Your task to perform on an android device: uninstall "Indeed Job Search" Image 0: 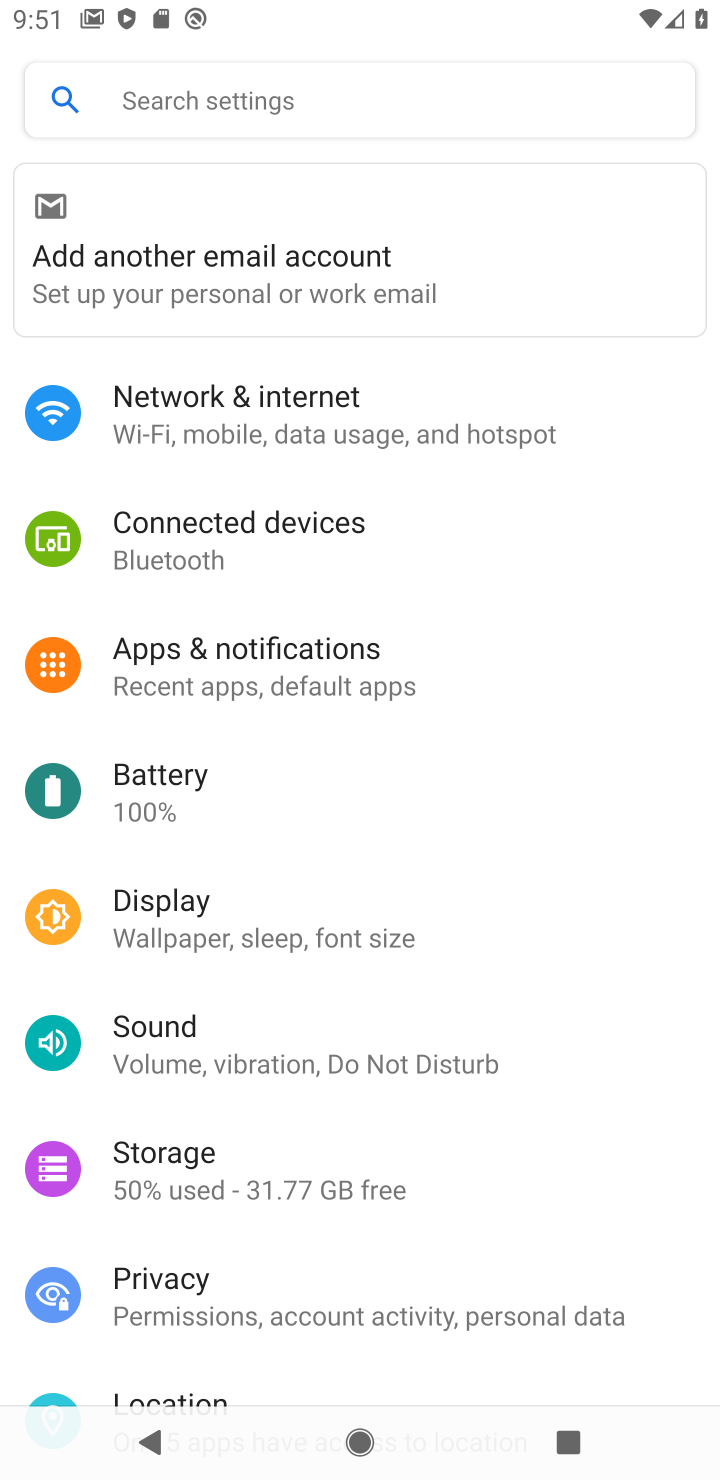
Step 0: press back button
Your task to perform on an android device: uninstall "Indeed Job Search" Image 1: 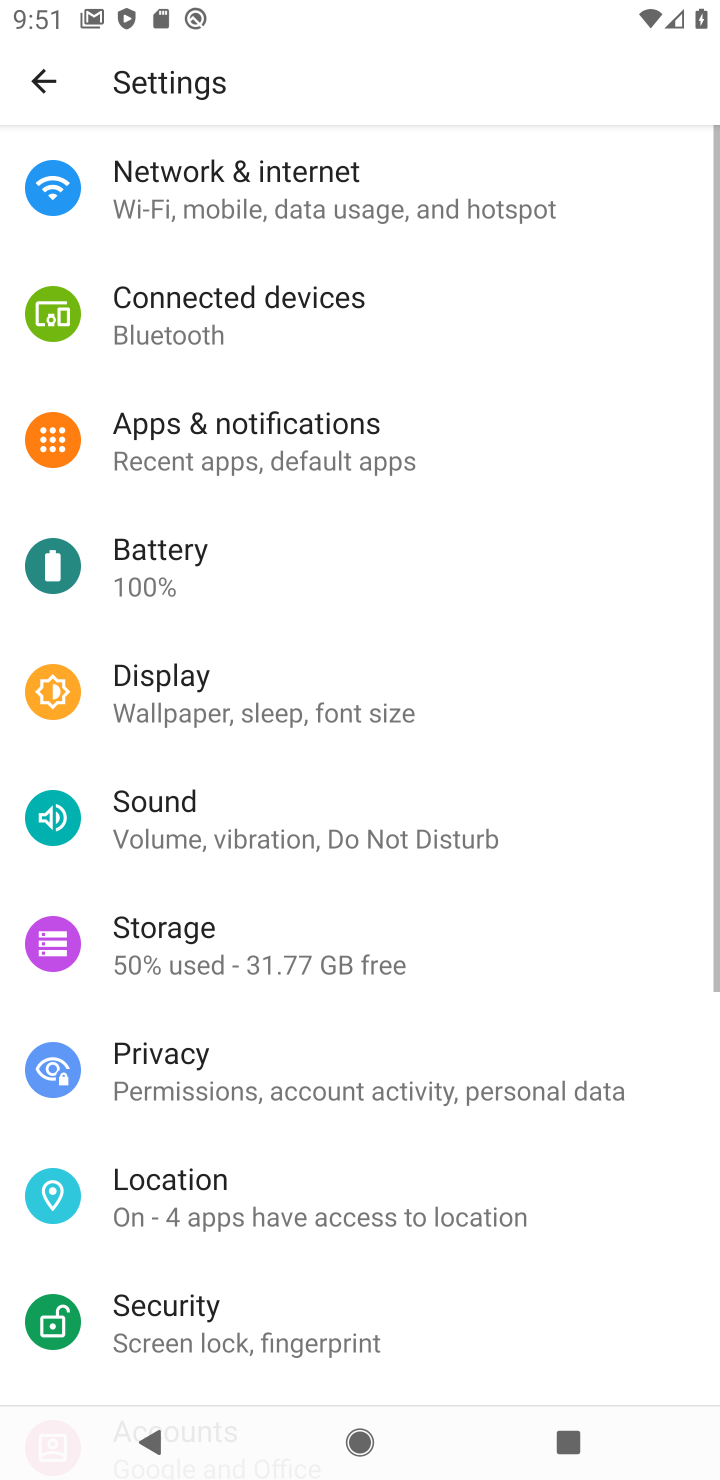
Step 1: press home button
Your task to perform on an android device: uninstall "Indeed Job Search" Image 2: 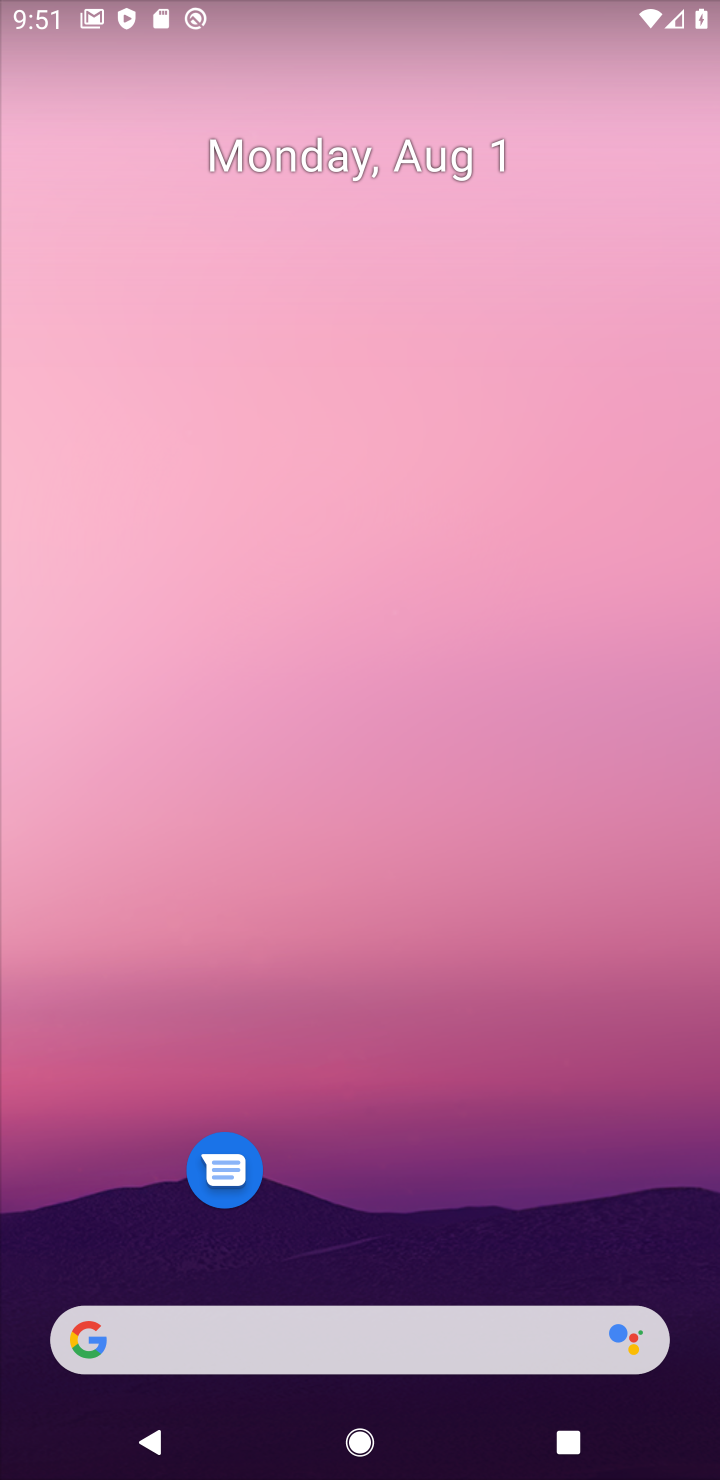
Step 2: drag from (352, 1158) to (393, 393)
Your task to perform on an android device: uninstall "Indeed Job Search" Image 3: 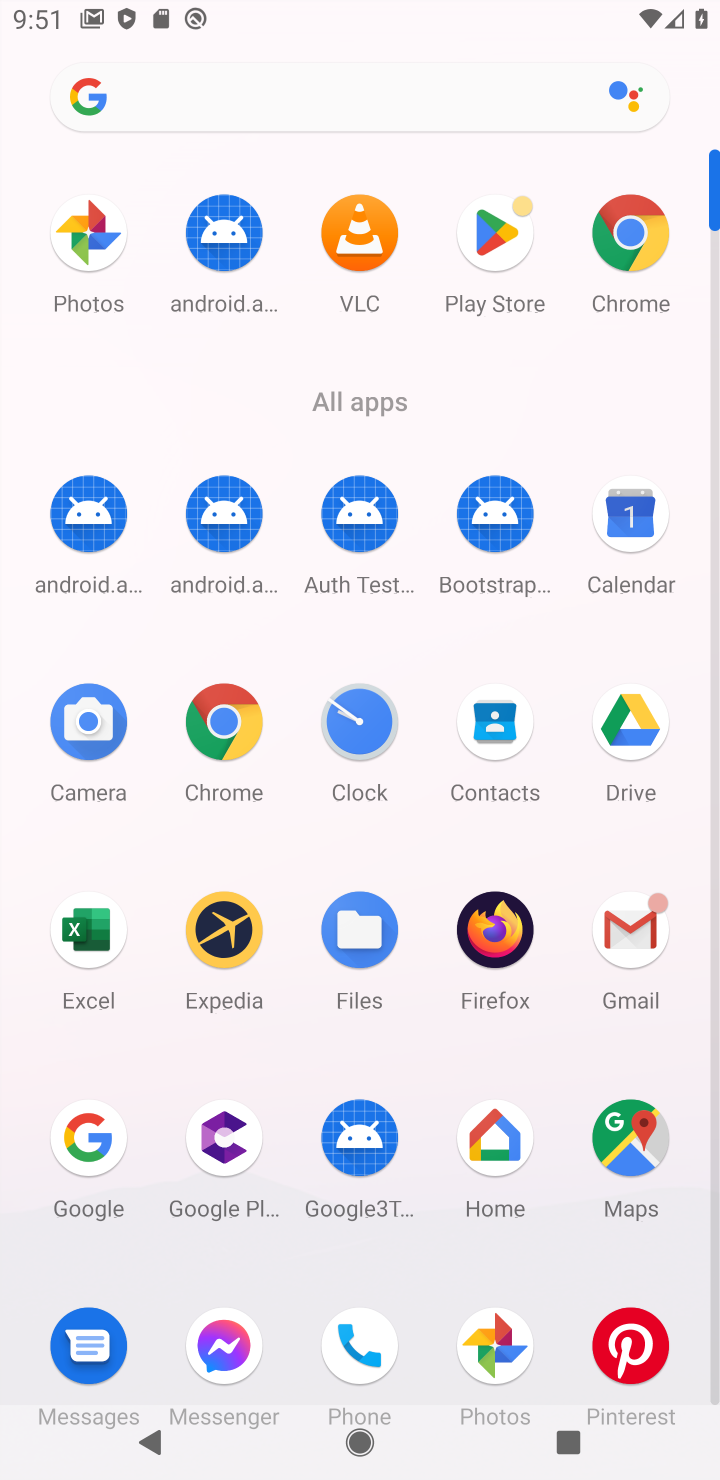
Step 3: click (510, 236)
Your task to perform on an android device: uninstall "Indeed Job Search" Image 4: 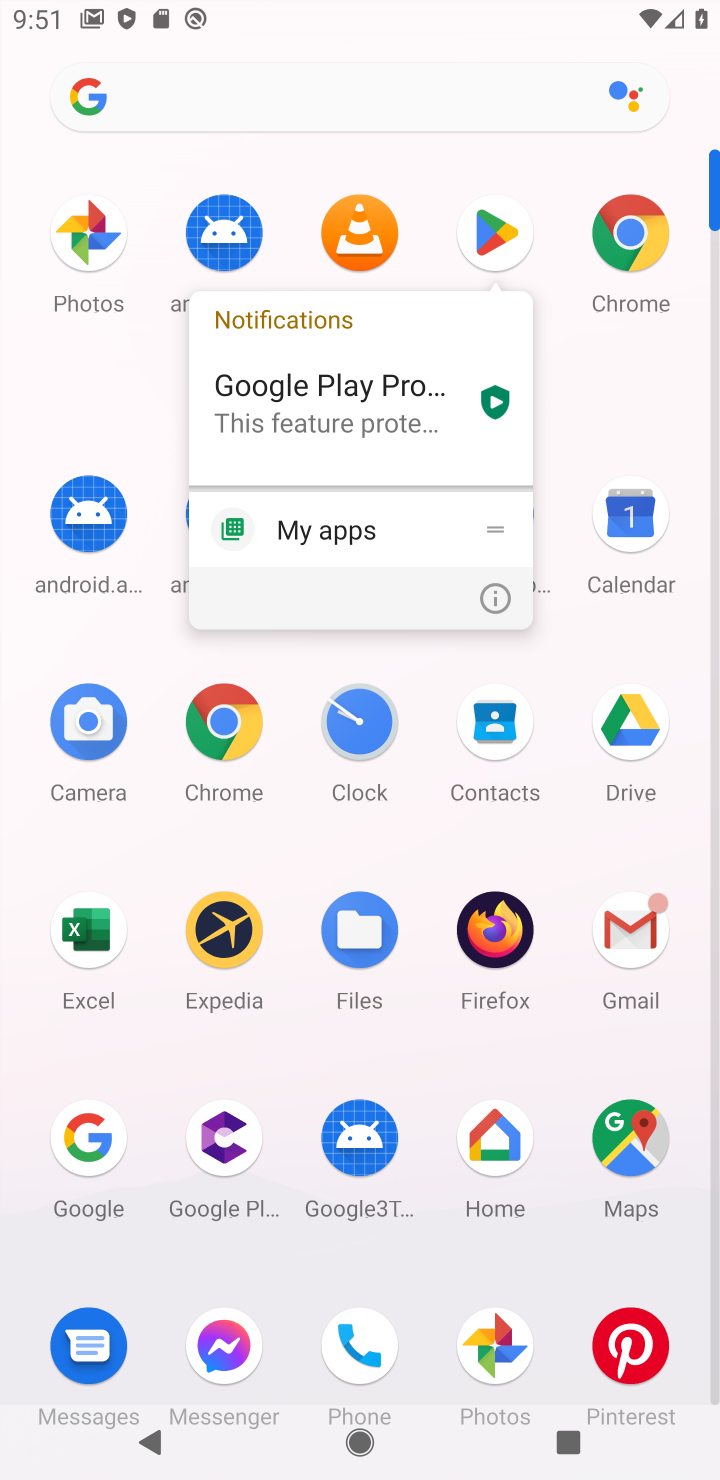
Step 4: click (359, 522)
Your task to perform on an android device: uninstall "Indeed Job Search" Image 5: 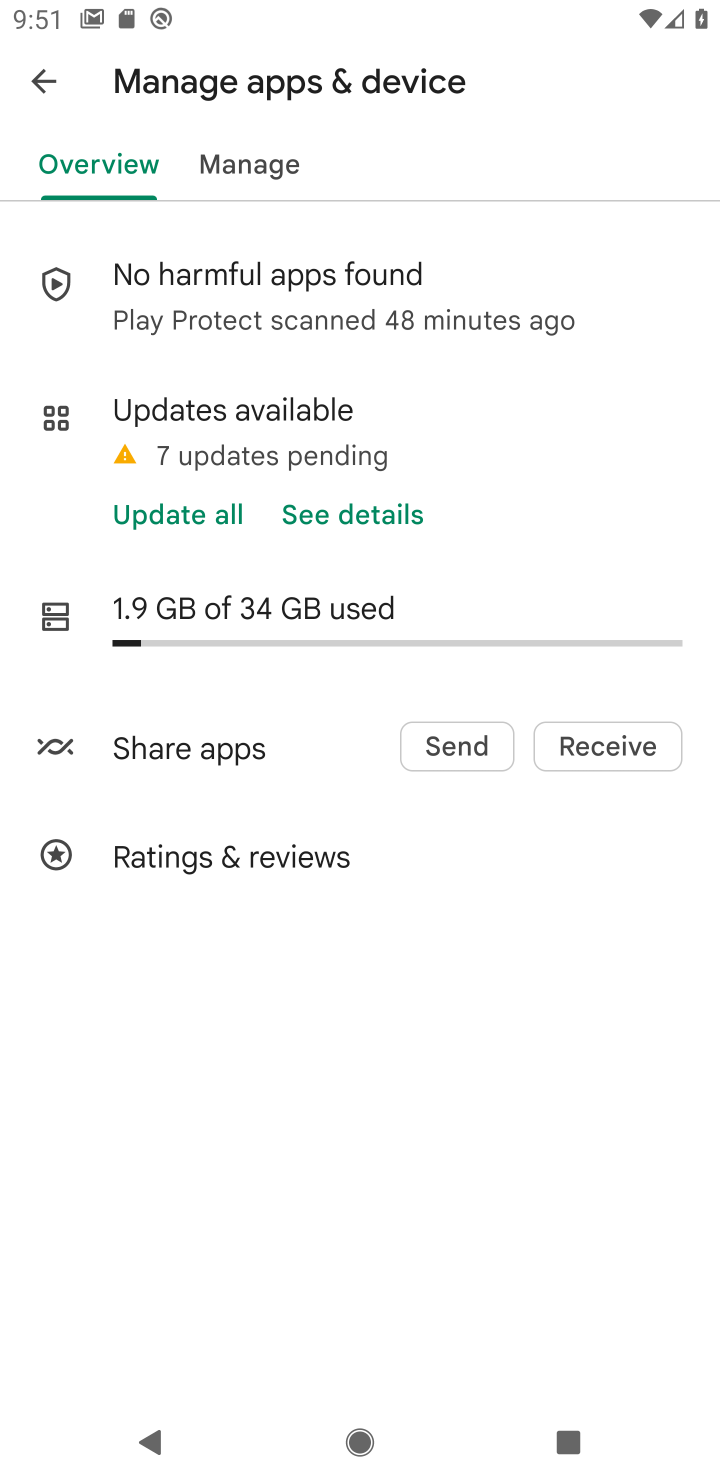
Step 5: click (16, 64)
Your task to perform on an android device: uninstall "Indeed Job Search" Image 6: 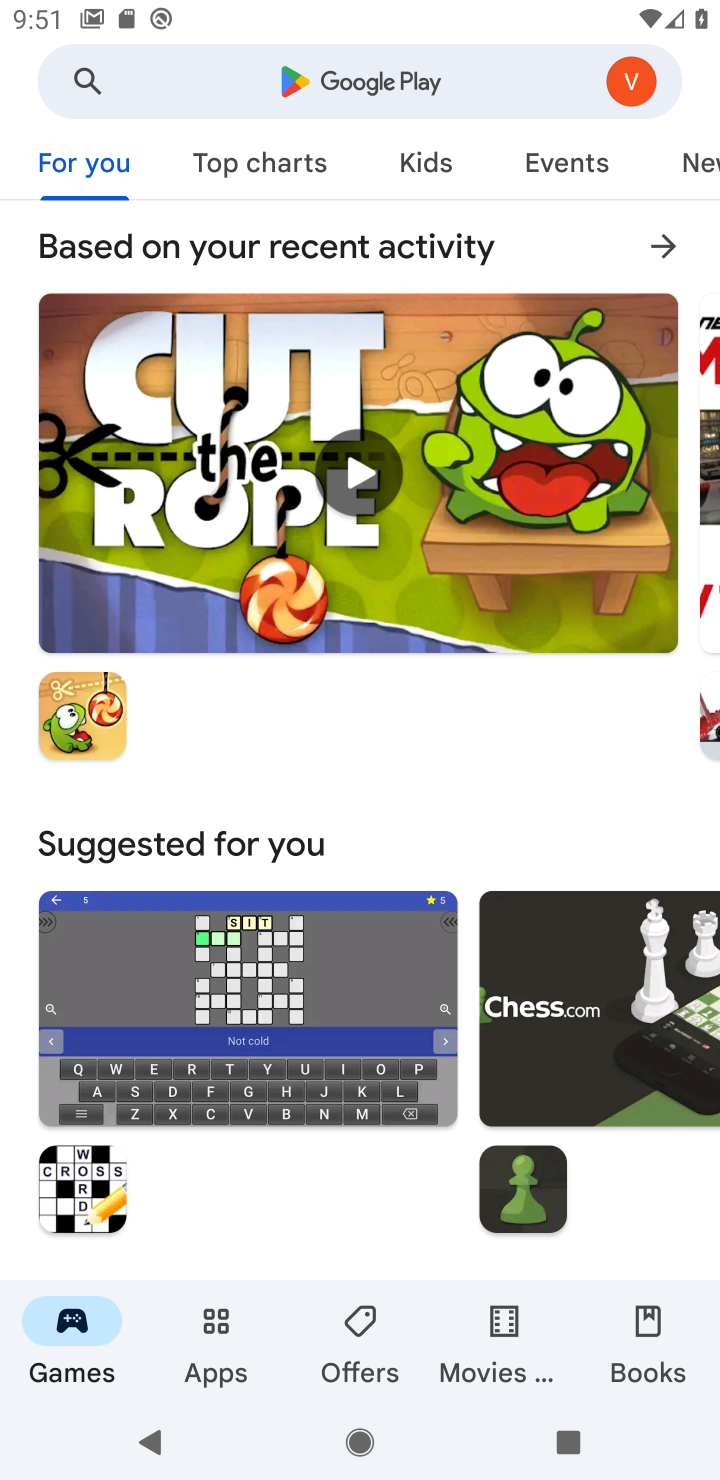
Step 6: click (266, 84)
Your task to perform on an android device: uninstall "Indeed Job Search" Image 7: 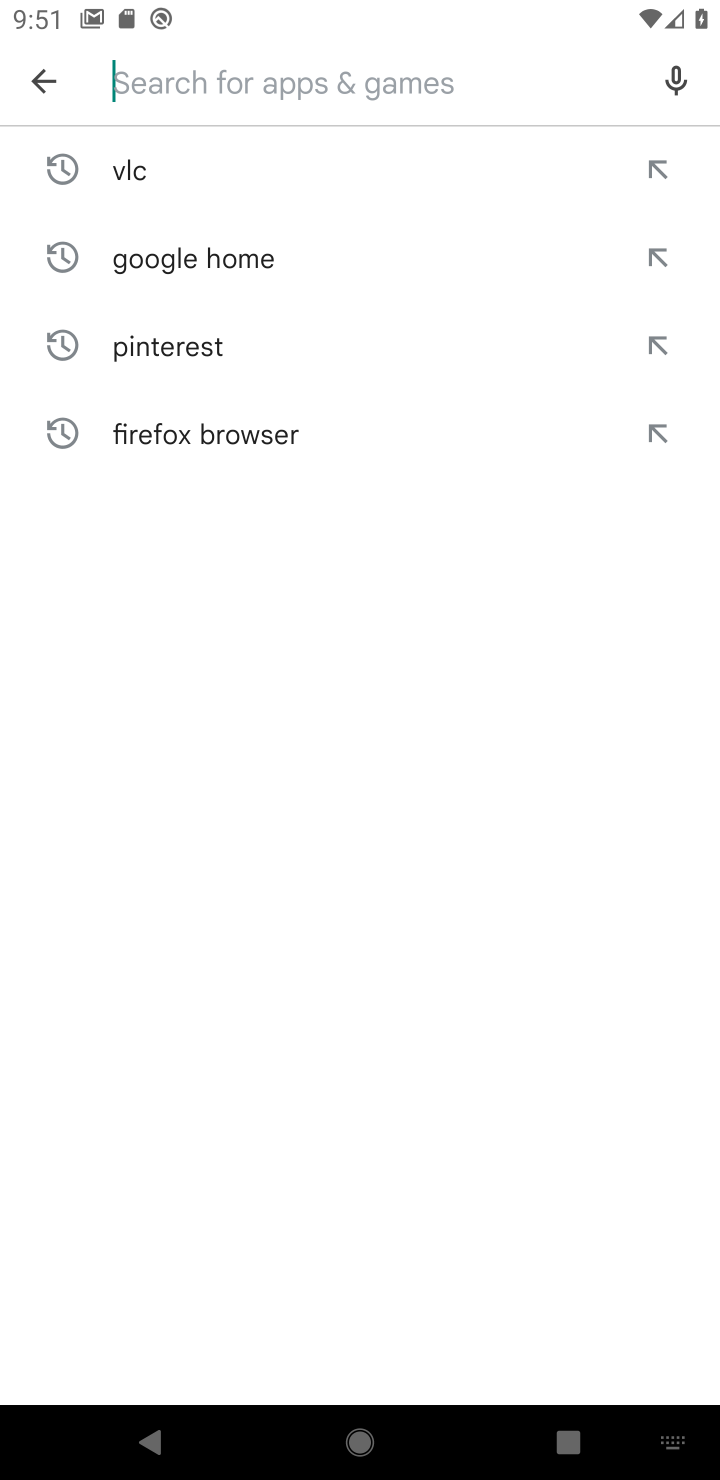
Step 7: type "Indeed Job Search"
Your task to perform on an android device: uninstall "Indeed Job Search" Image 8: 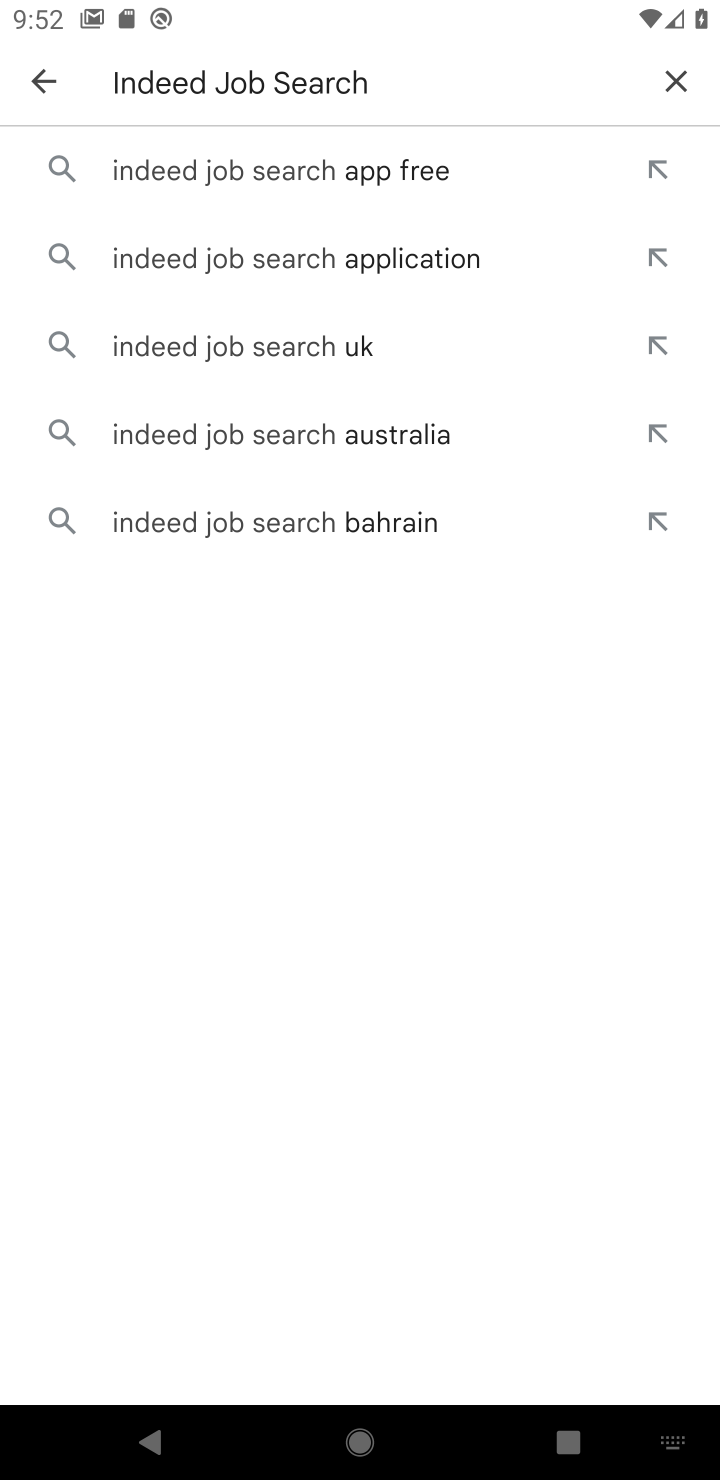
Step 8: click (330, 171)
Your task to perform on an android device: uninstall "Indeed Job Search" Image 9: 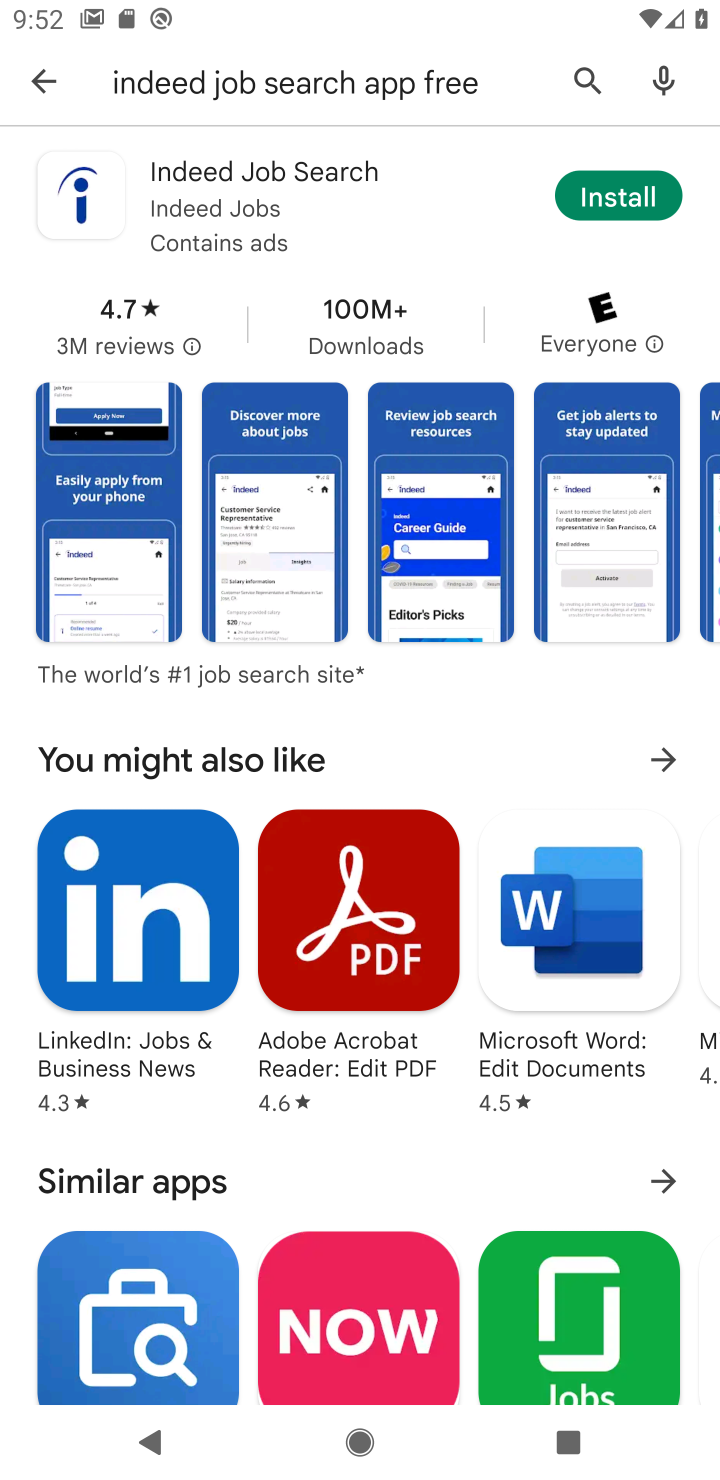
Step 9: task complete